Your task to perform on an android device: toggle translation in the chrome app Image 0: 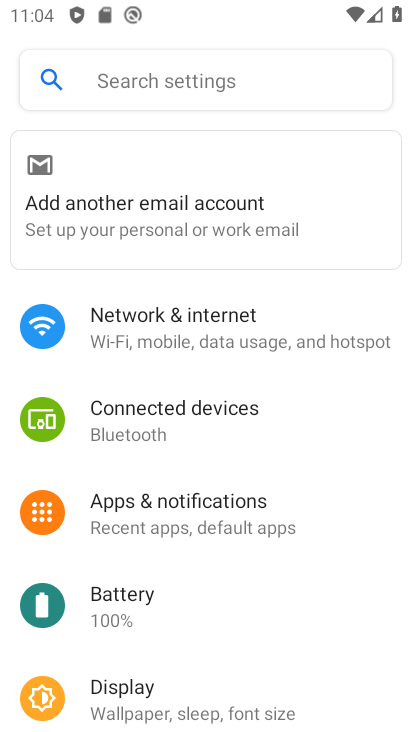
Step 0: press home button
Your task to perform on an android device: toggle translation in the chrome app Image 1: 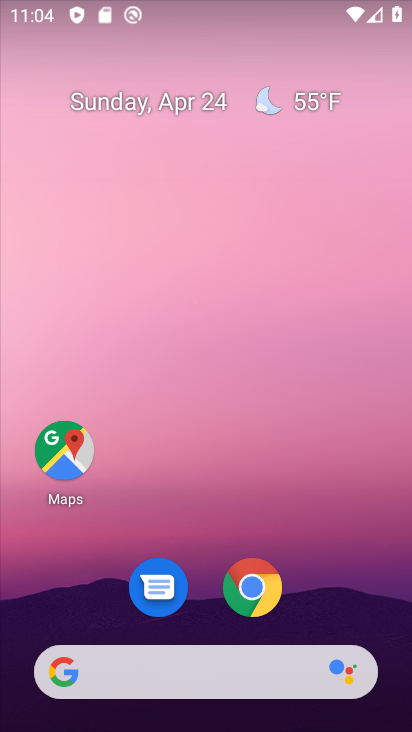
Step 1: click (252, 580)
Your task to perform on an android device: toggle translation in the chrome app Image 2: 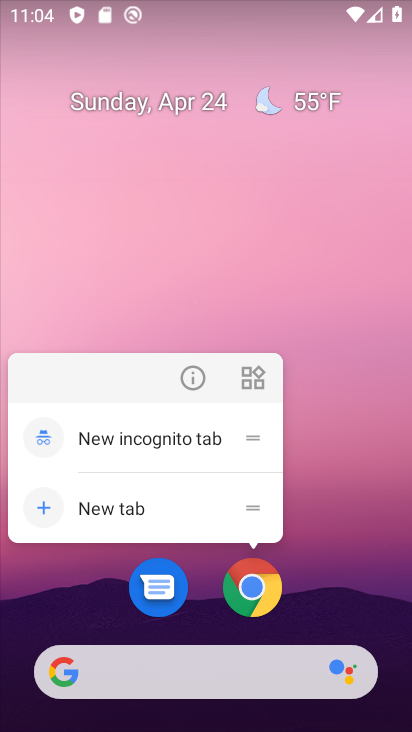
Step 2: click (252, 579)
Your task to perform on an android device: toggle translation in the chrome app Image 3: 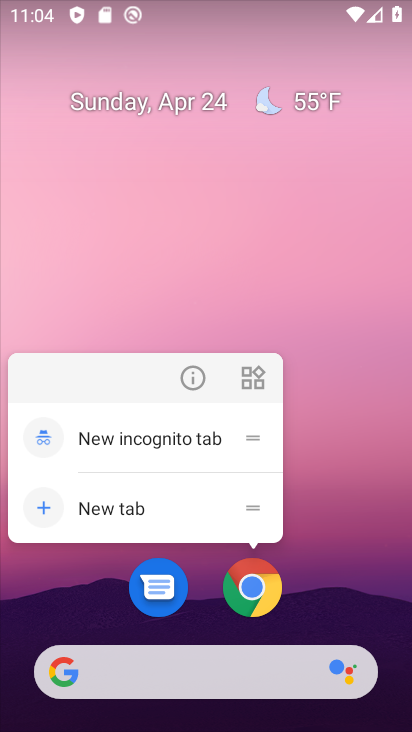
Step 3: click (252, 578)
Your task to perform on an android device: toggle translation in the chrome app Image 4: 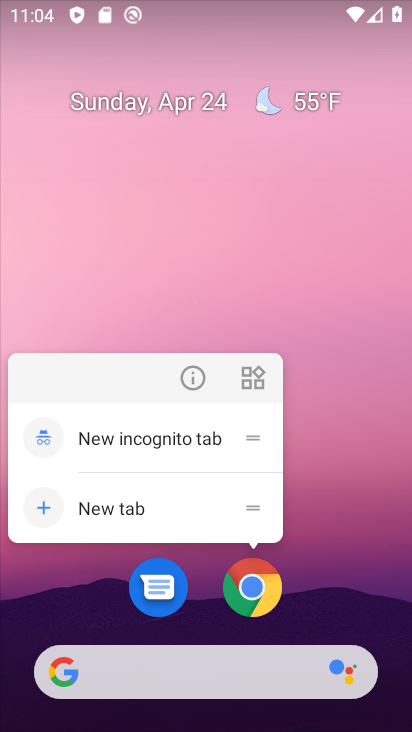
Step 4: click (252, 577)
Your task to perform on an android device: toggle translation in the chrome app Image 5: 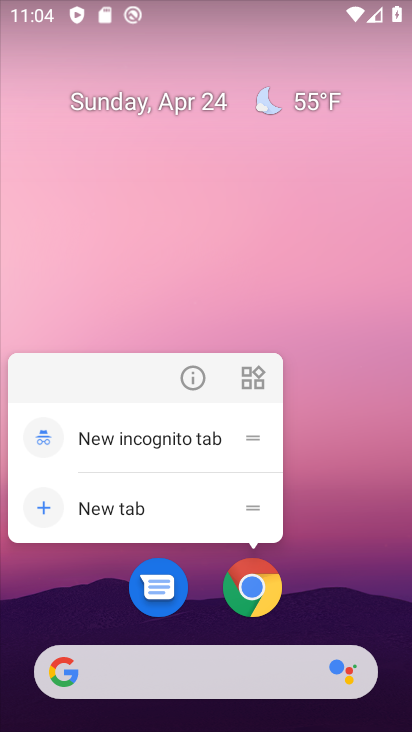
Step 5: click (252, 577)
Your task to perform on an android device: toggle translation in the chrome app Image 6: 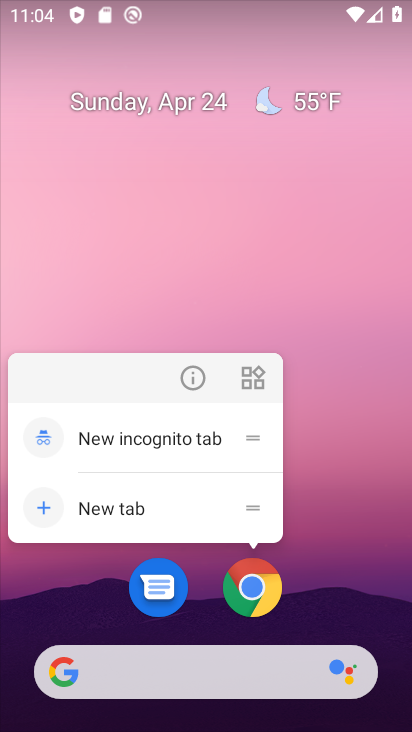
Step 6: click (256, 600)
Your task to perform on an android device: toggle translation in the chrome app Image 7: 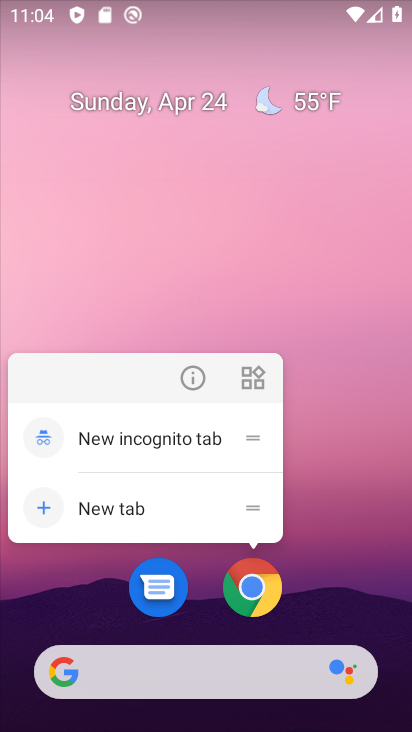
Step 7: click (256, 600)
Your task to perform on an android device: toggle translation in the chrome app Image 8: 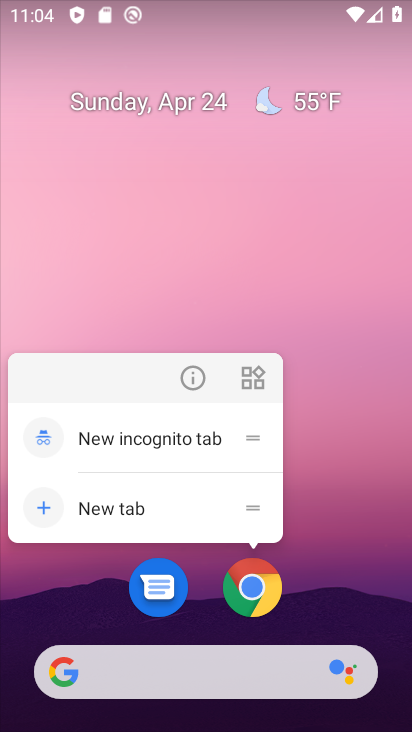
Step 8: click (256, 600)
Your task to perform on an android device: toggle translation in the chrome app Image 9: 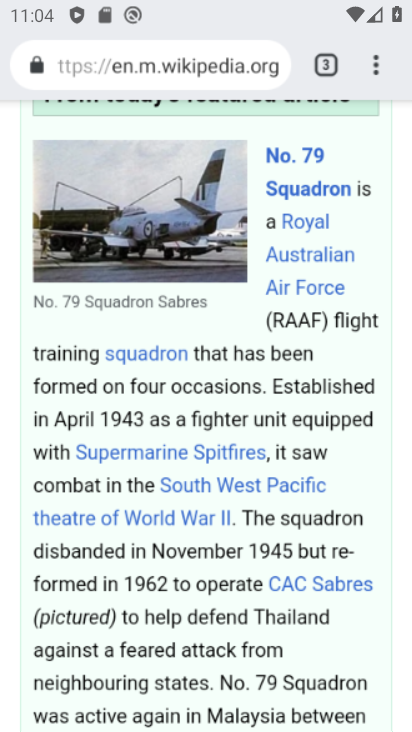
Step 9: click (256, 600)
Your task to perform on an android device: toggle translation in the chrome app Image 10: 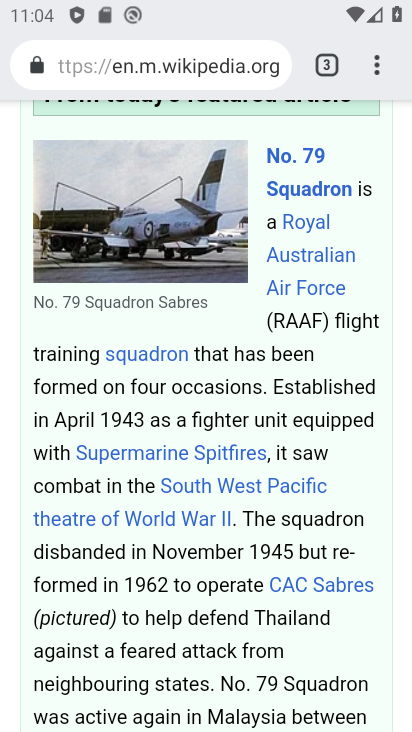
Step 10: drag from (368, 68) to (163, 646)
Your task to perform on an android device: toggle translation in the chrome app Image 11: 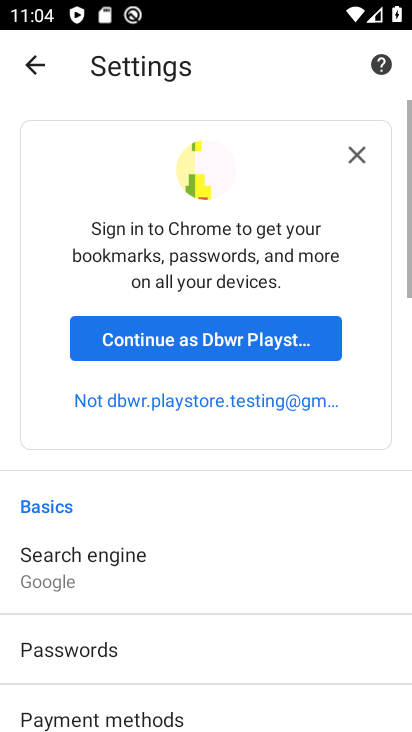
Step 11: drag from (146, 665) to (151, 231)
Your task to perform on an android device: toggle translation in the chrome app Image 12: 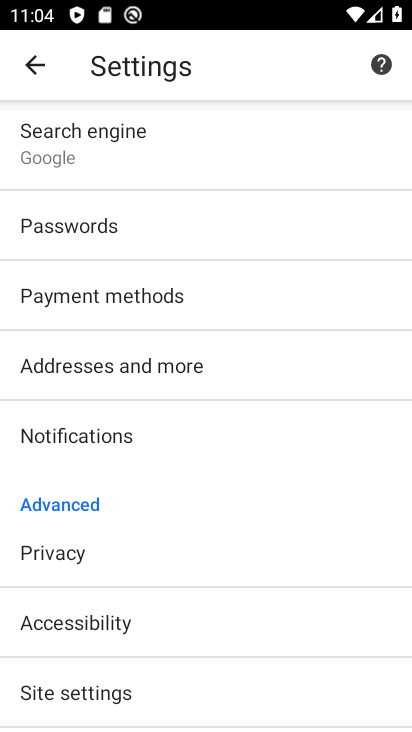
Step 12: drag from (256, 684) to (338, 199)
Your task to perform on an android device: toggle translation in the chrome app Image 13: 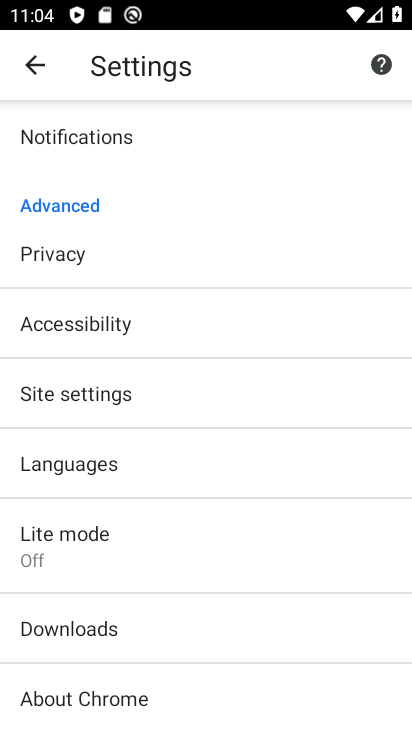
Step 13: click (89, 477)
Your task to perform on an android device: toggle translation in the chrome app Image 14: 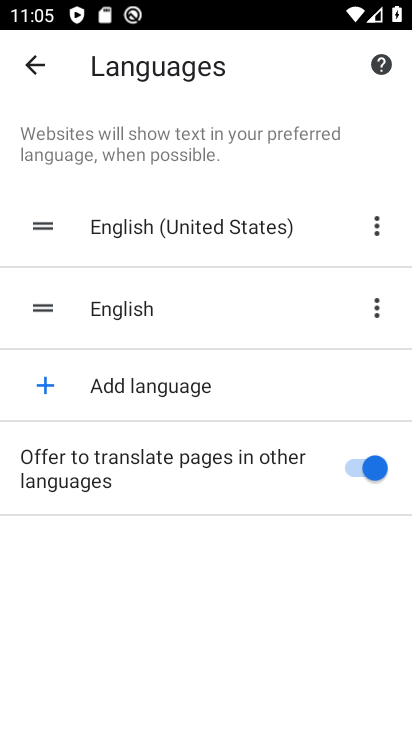
Step 14: click (367, 472)
Your task to perform on an android device: toggle translation in the chrome app Image 15: 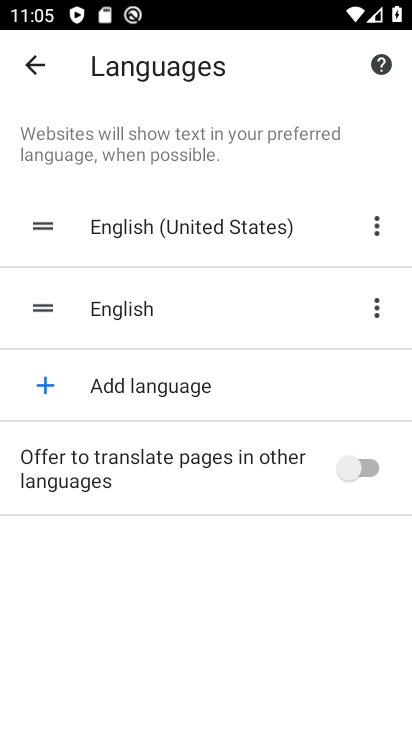
Step 15: task complete